Your task to perform on an android device: What is the recent news? Image 0: 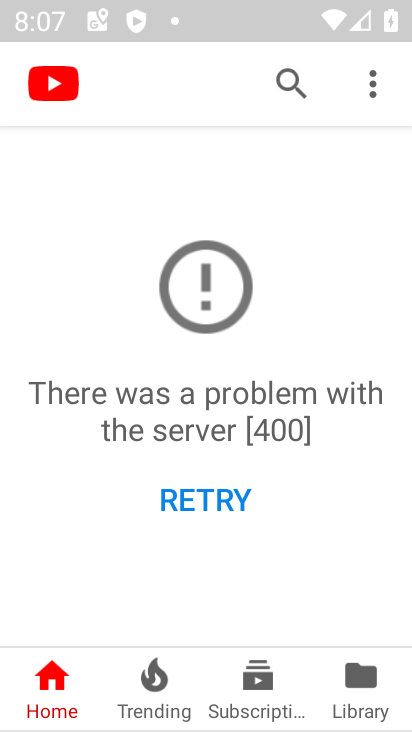
Step 0: press home button
Your task to perform on an android device: What is the recent news? Image 1: 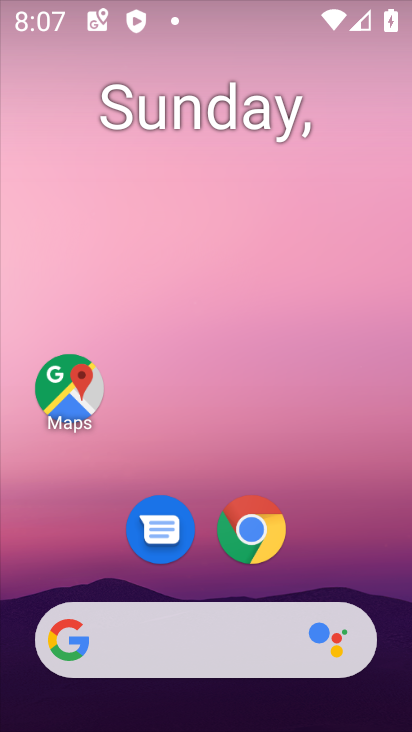
Step 1: drag from (364, 567) to (351, 85)
Your task to perform on an android device: What is the recent news? Image 2: 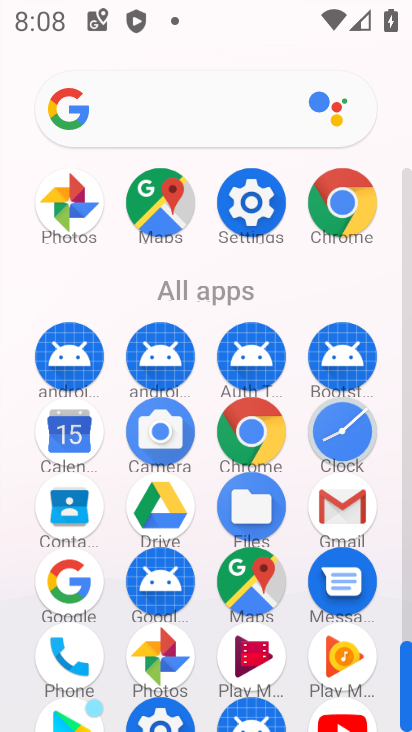
Step 2: drag from (292, 687) to (293, 434)
Your task to perform on an android device: What is the recent news? Image 3: 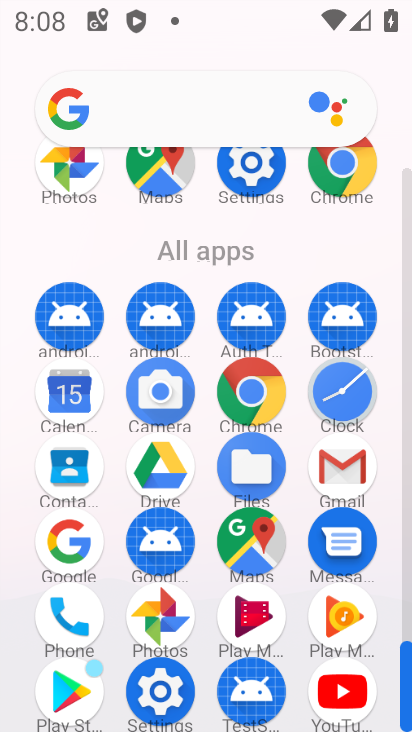
Step 3: click (262, 414)
Your task to perform on an android device: What is the recent news? Image 4: 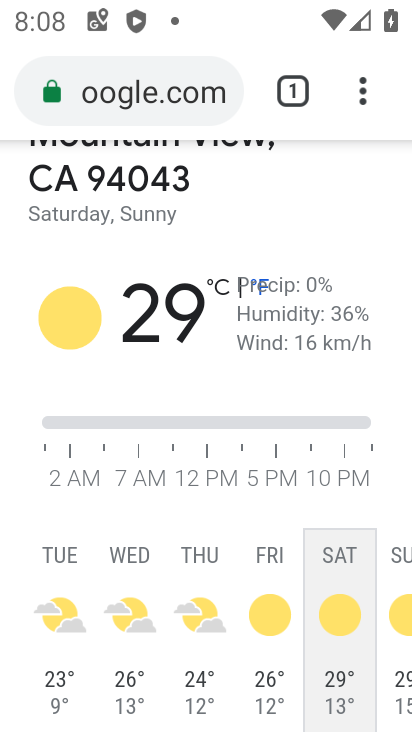
Step 4: click (173, 98)
Your task to perform on an android device: What is the recent news? Image 5: 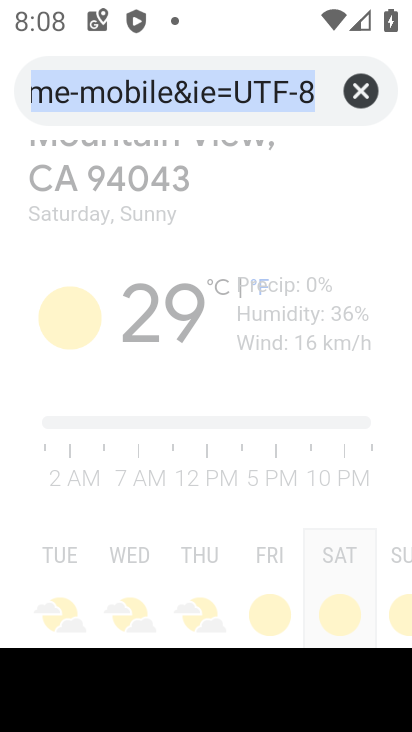
Step 5: click (356, 94)
Your task to perform on an android device: What is the recent news? Image 6: 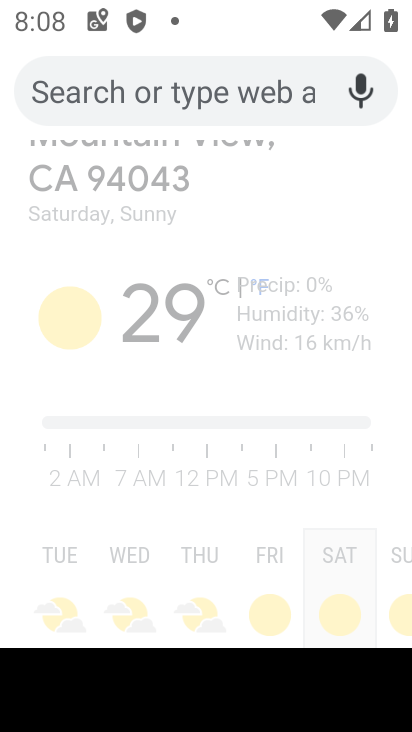
Step 6: type "recent news"
Your task to perform on an android device: What is the recent news? Image 7: 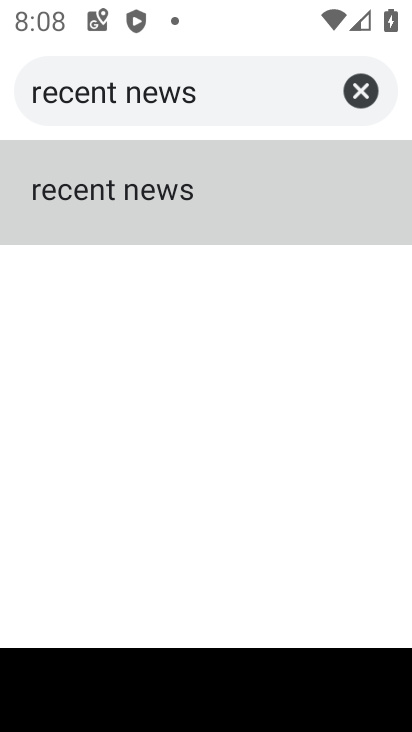
Step 7: click (61, 193)
Your task to perform on an android device: What is the recent news? Image 8: 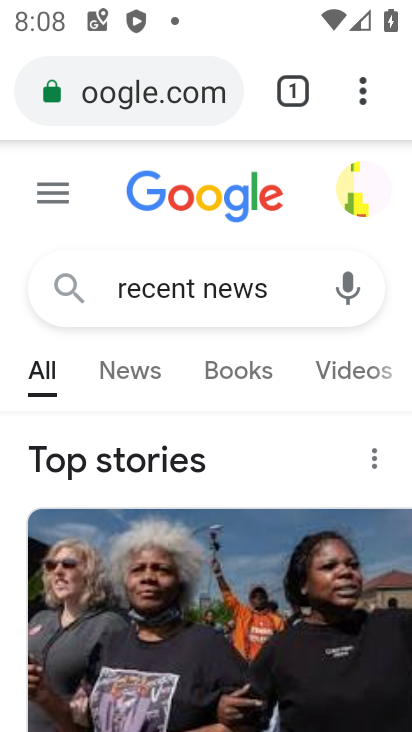
Step 8: task complete